Your task to perform on an android device: Is it going to rain tomorrow? Image 0: 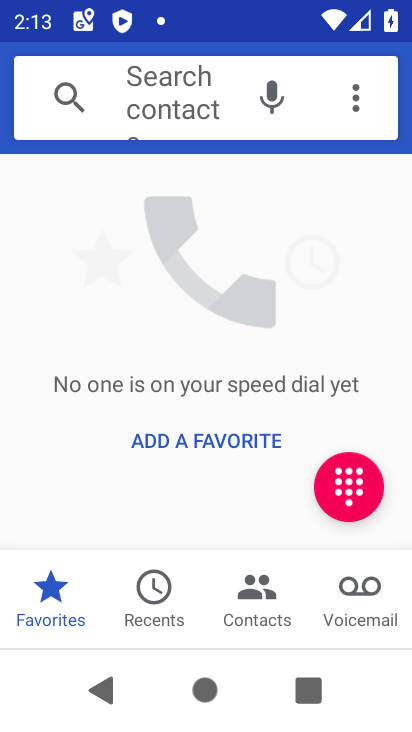
Step 0: press home button
Your task to perform on an android device: Is it going to rain tomorrow? Image 1: 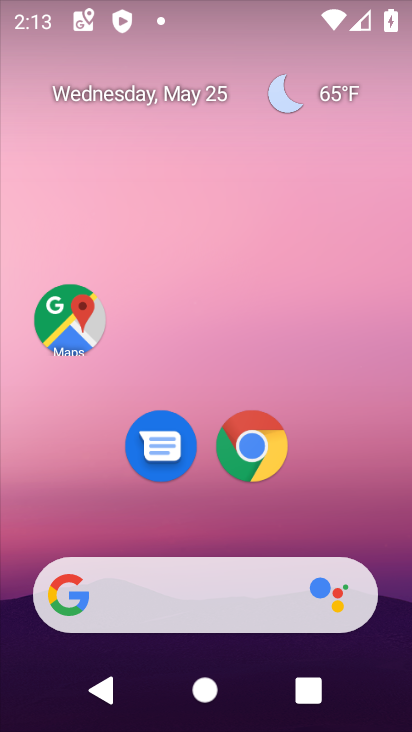
Step 1: click (336, 95)
Your task to perform on an android device: Is it going to rain tomorrow? Image 2: 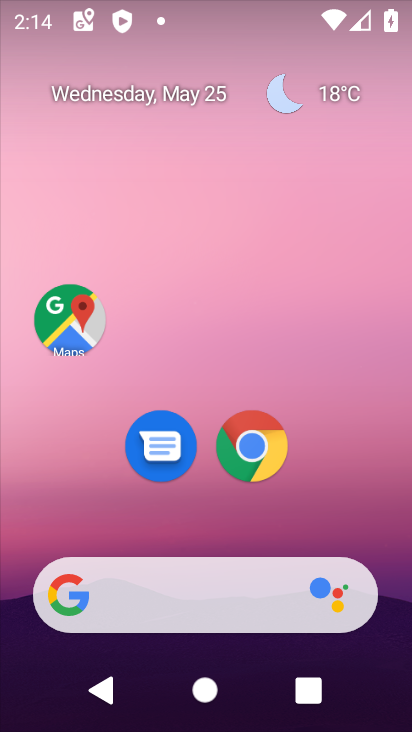
Step 2: click (296, 102)
Your task to perform on an android device: Is it going to rain tomorrow? Image 3: 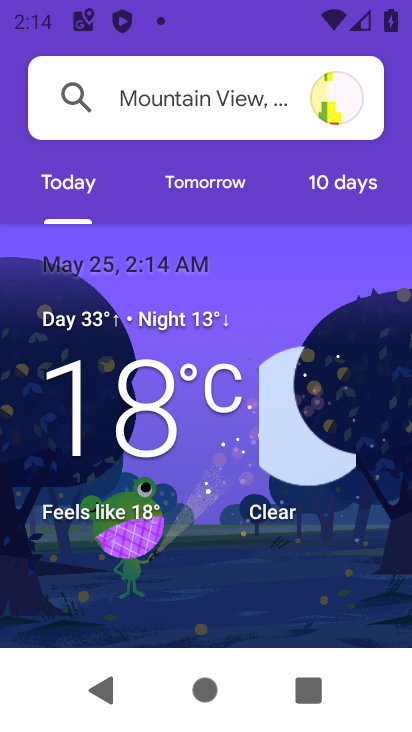
Step 3: click (187, 193)
Your task to perform on an android device: Is it going to rain tomorrow? Image 4: 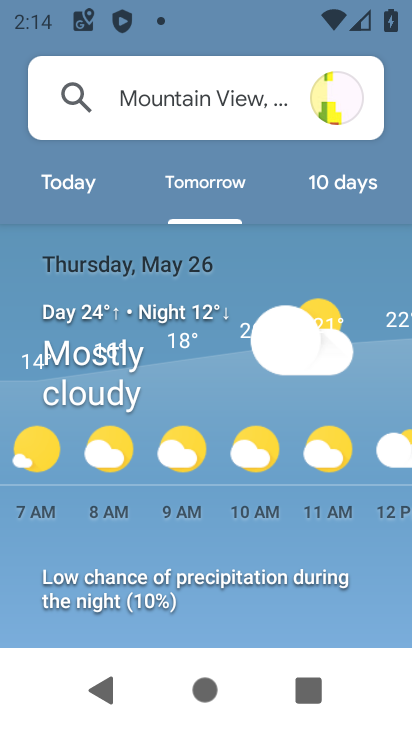
Step 4: task complete